Your task to perform on an android device: Open the map Image 0: 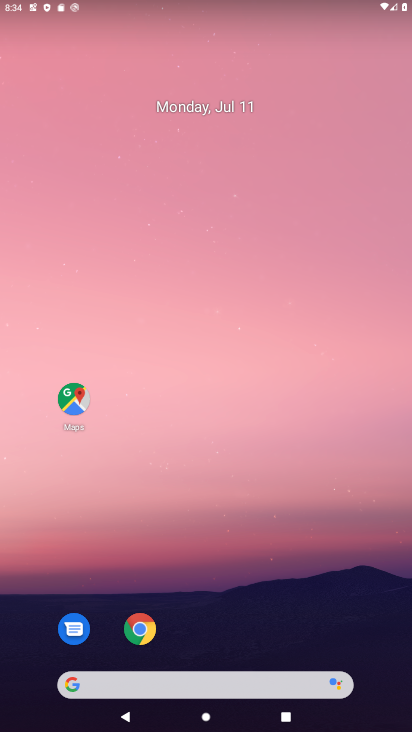
Step 0: click (84, 419)
Your task to perform on an android device: Open the map Image 1: 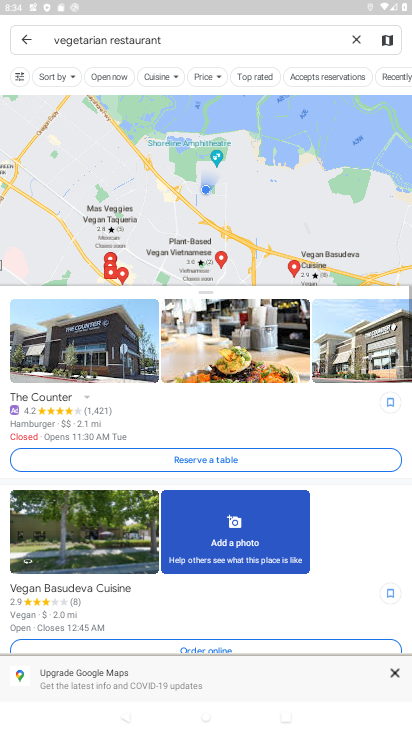
Step 1: task complete